Your task to perform on an android device: install app "Google Translate" Image 0: 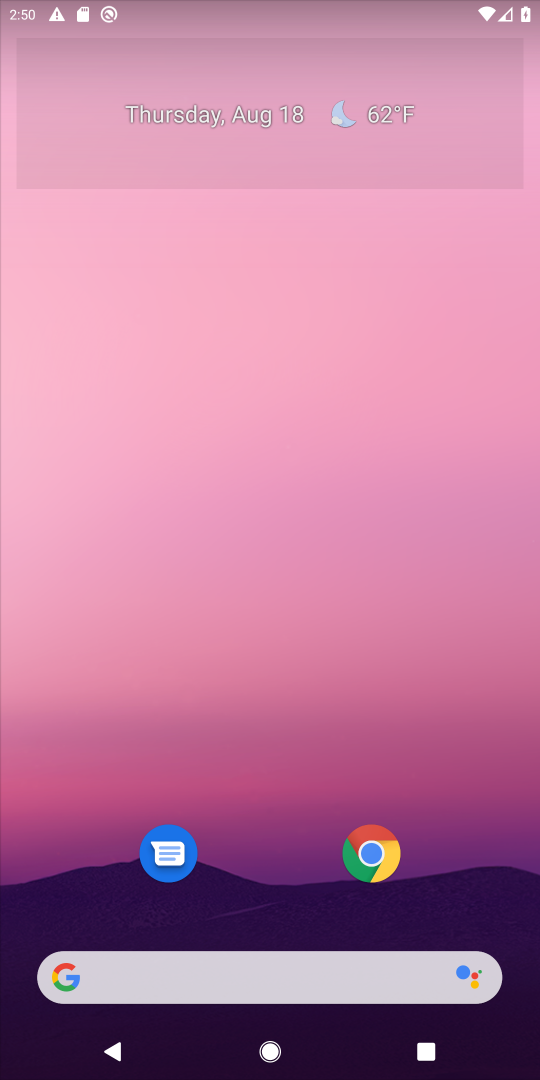
Step 0: drag from (490, 899) to (229, 721)
Your task to perform on an android device: install app "Google Translate" Image 1: 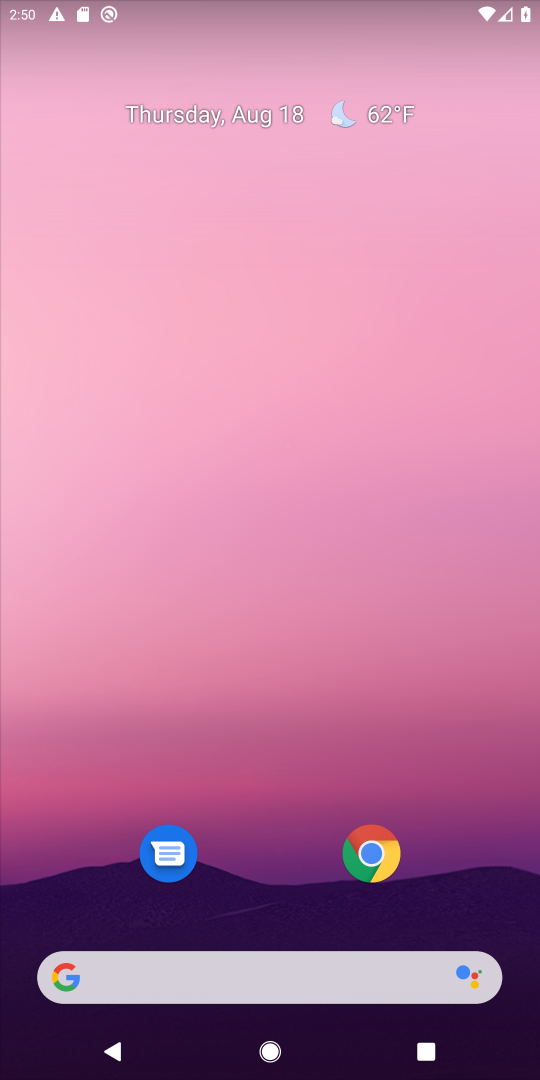
Step 1: drag from (472, 877) to (531, 247)
Your task to perform on an android device: install app "Google Translate" Image 2: 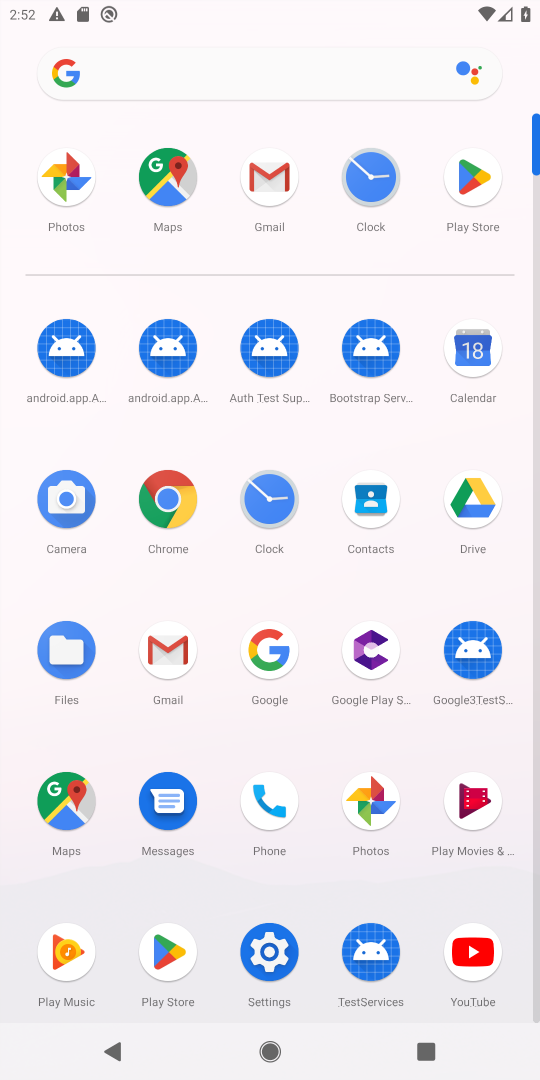
Step 2: click (472, 169)
Your task to perform on an android device: install app "Google Translate" Image 3: 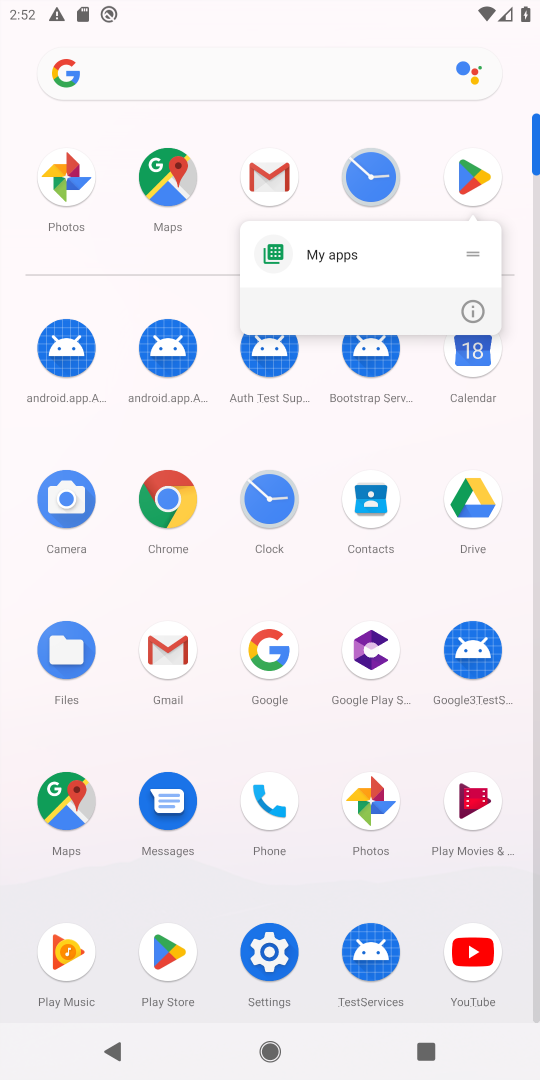
Step 3: click (472, 169)
Your task to perform on an android device: install app "Google Translate" Image 4: 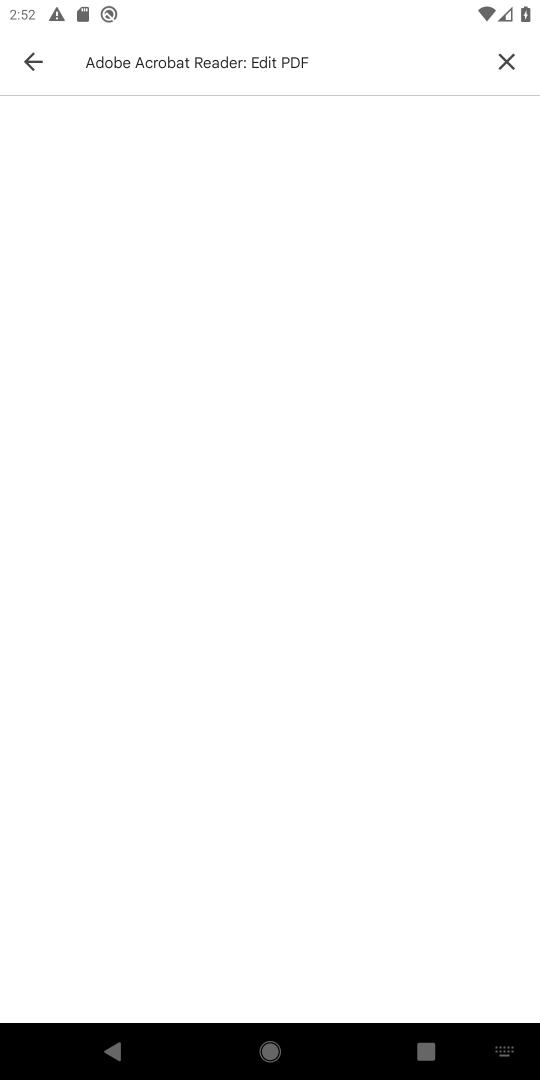
Step 4: click (512, 73)
Your task to perform on an android device: install app "Google Translate" Image 5: 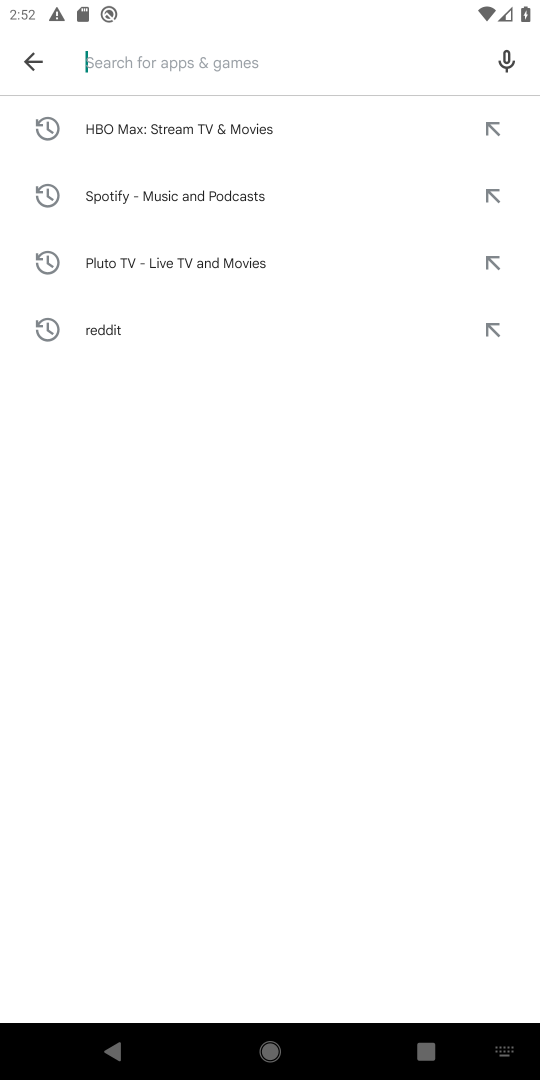
Step 5: type "Google Translate"
Your task to perform on an android device: install app "Google Translate" Image 6: 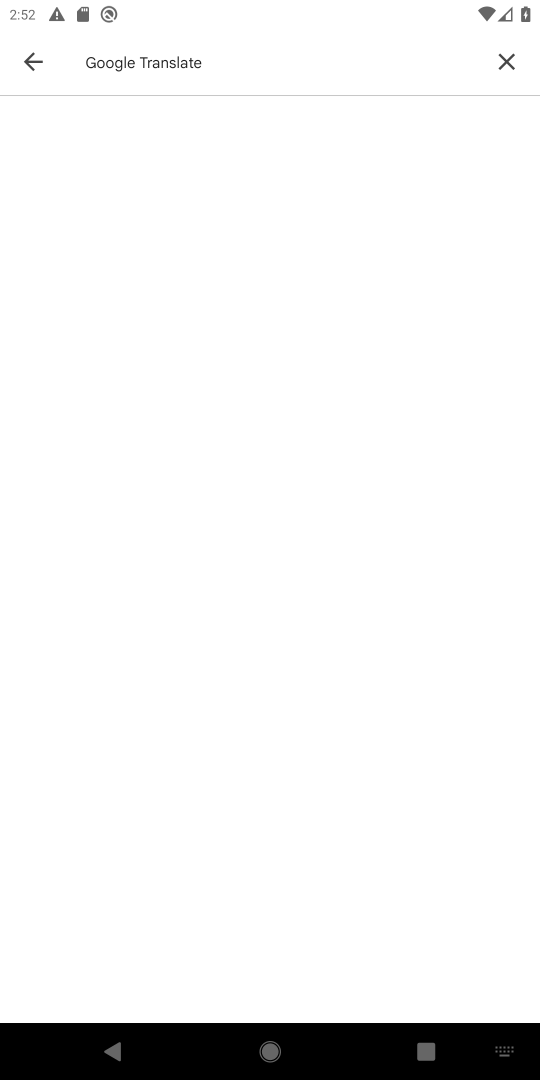
Step 6: task complete